Your task to perform on an android device: Open Google Maps Image 0: 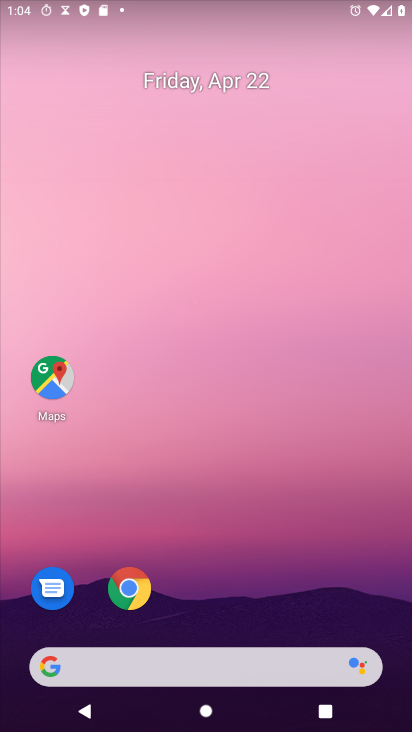
Step 0: drag from (256, 683) to (296, 259)
Your task to perform on an android device: Open Google Maps Image 1: 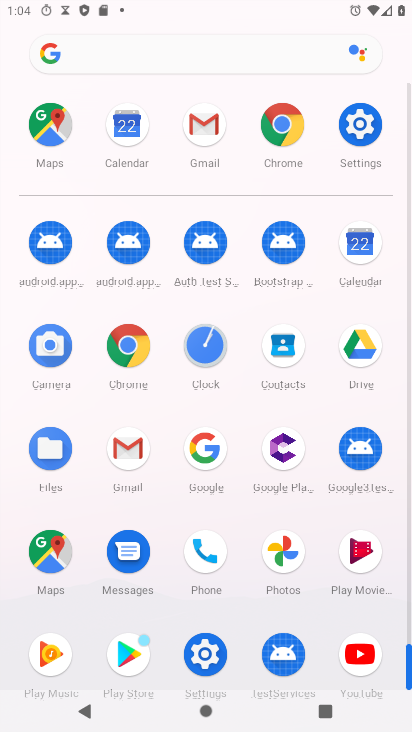
Step 1: click (32, 120)
Your task to perform on an android device: Open Google Maps Image 2: 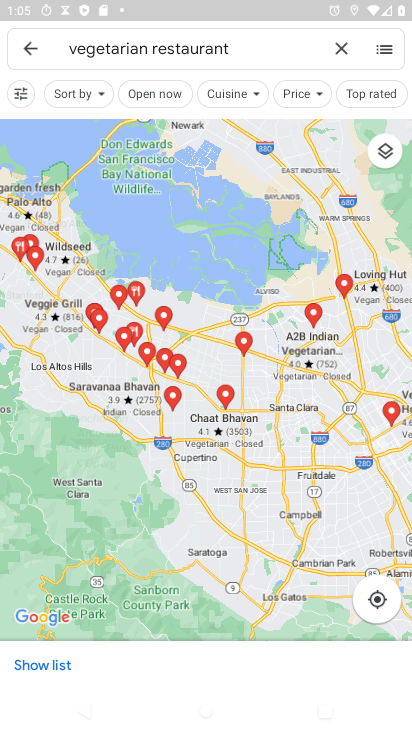
Step 2: click (32, 46)
Your task to perform on an android device: Open Google Maps Image 3: 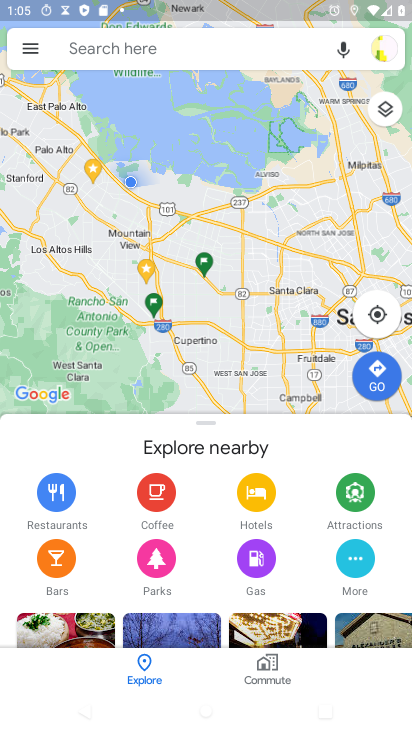
Step 3: task complete